Your task to perform on an android device: toggle sleep mode Image 0: 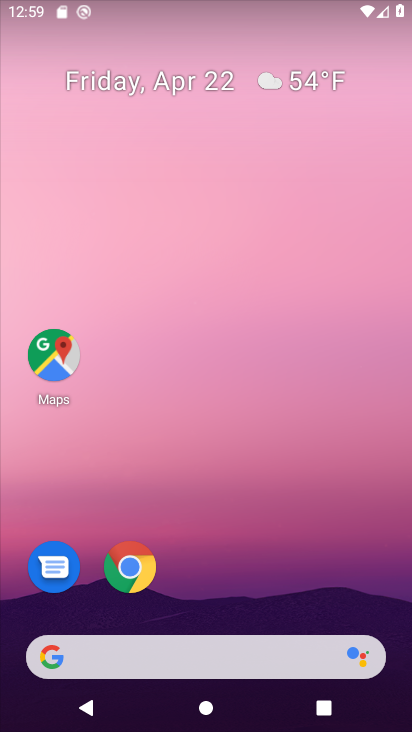
Step 0: drag from (215, 614) to (294, 66)
Your task to perform on an android device: toggle sleep mode Image 1: 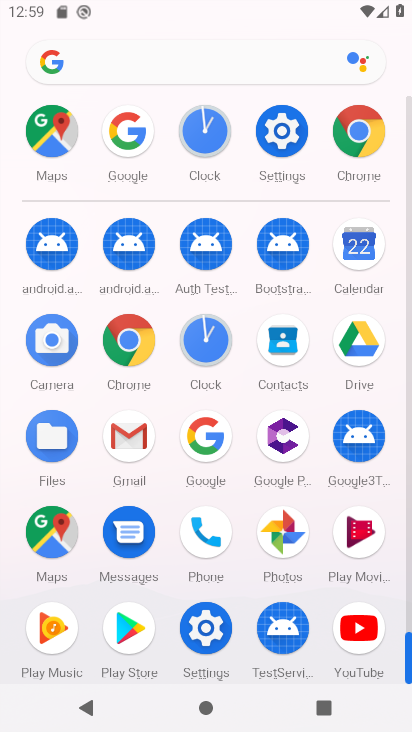
Step 1: click (281, 136)
Your task to perform on an android device: toggle sleep mode Image 2: 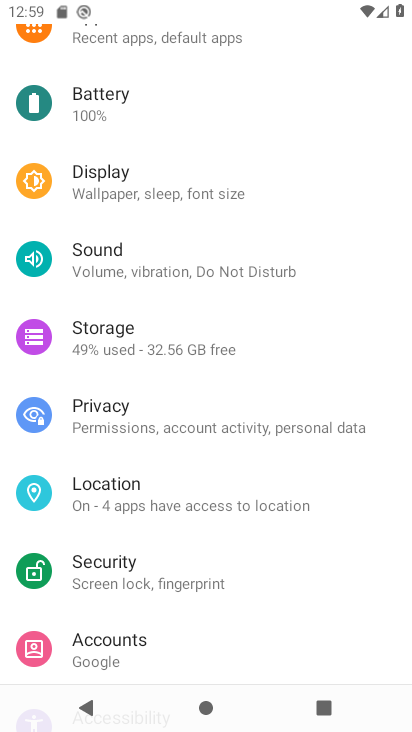
Step 2: click (212, 199)
Your task to perform on an android device: toggle sleep mode Image 3: 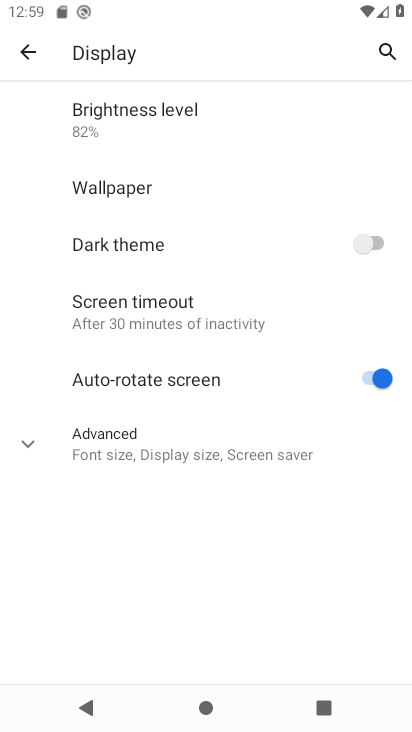
Step 3: click (164, 448)
Your task to perform on an android device: toggle sleep mode Image 4: 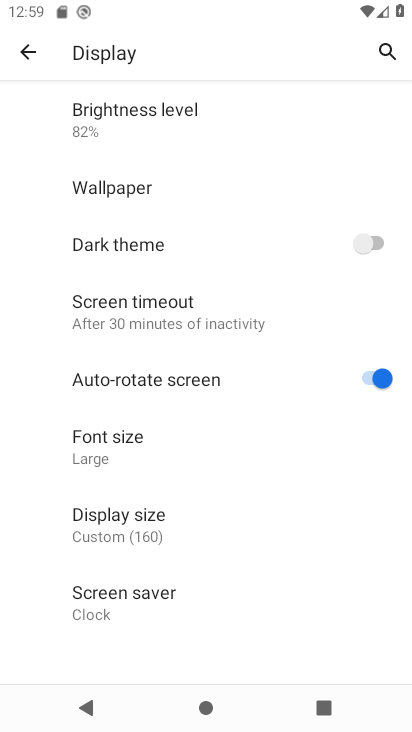
Step 4: task complete